Your task to perform on an android device: Open settings Image 0: 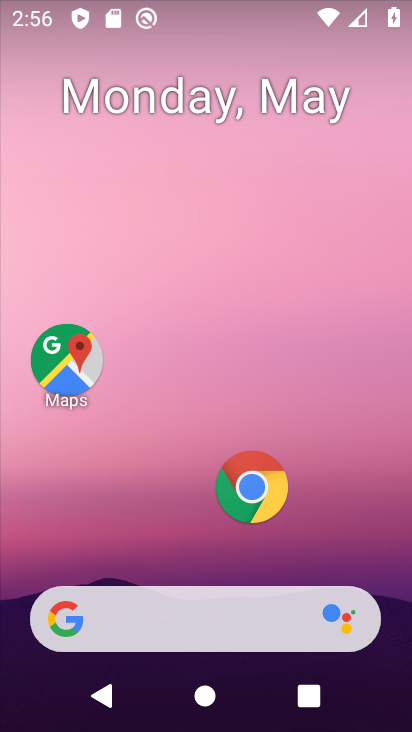
Step 0: drag from (314, 524) to (302, 73)
Your task to perform on an android device: Open settings Image 1: 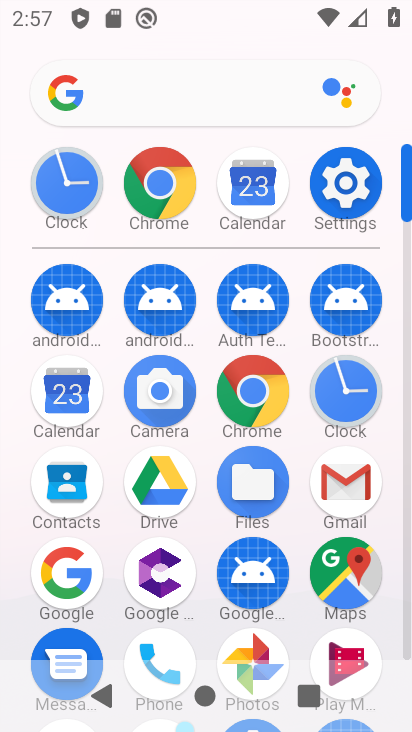
Step 1: click (334, 185)
Your task to perform on an android device: Open settings Image 2: 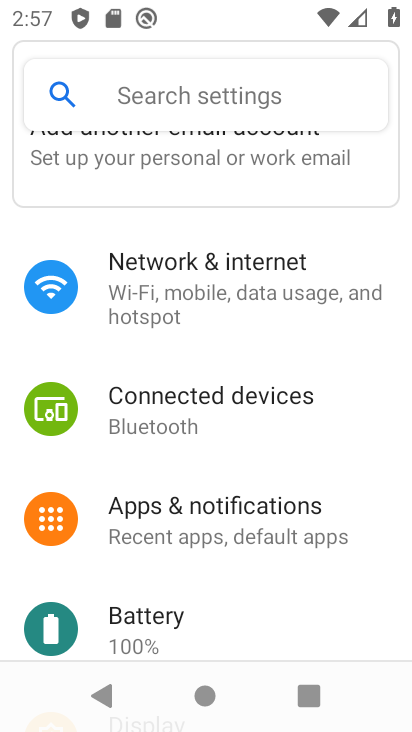
Step 2: task complete